Your task to perform on an android device: turn smart compose on in the gmail app Image 0: 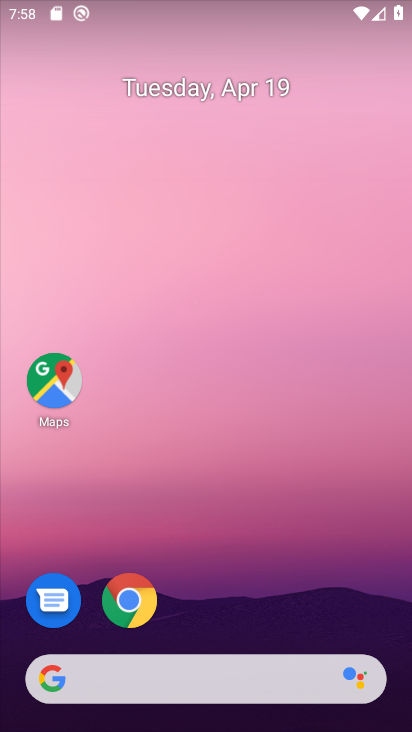
Step 0: click (409, 586)
Your task to perform on an android device: turn smart compose on in the gmail app Image 1: 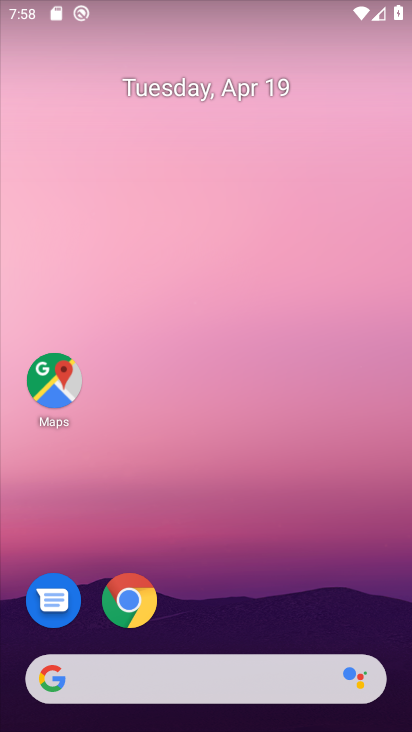
Step 1: drag from (364, 610) to (363, 136)
Your task to perform on an android device: turn smart compose on in the gmail app Image 2: 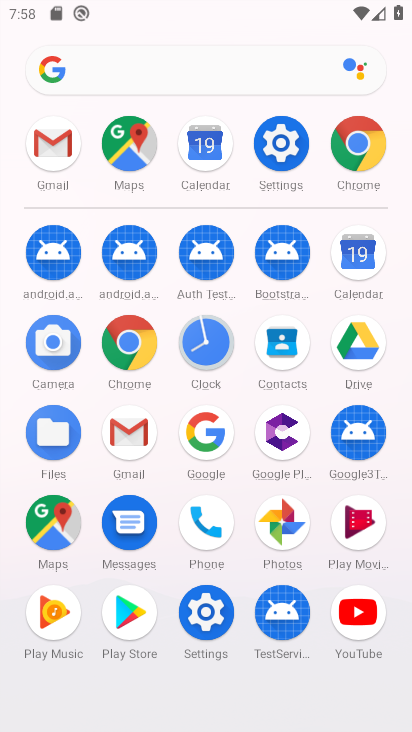
Step 2: click (129, 446)
Your task to perform on an android device: turn smart compose on in the gmail app Image 3: 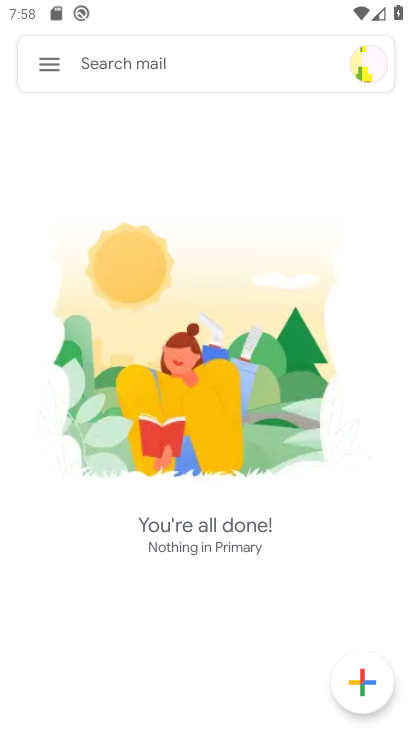
Step 3: click (52, 63)
Your task to perform on an android device: turn smart compose on in the gmail app Image 4: 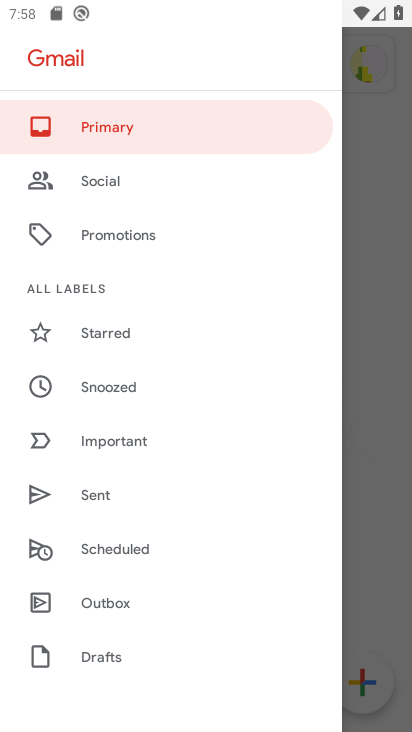
Step 4: drag from (262, 468) to (290, 329)
Your task to perform on an android device: turn smart compose on in the gmail app Image 5: 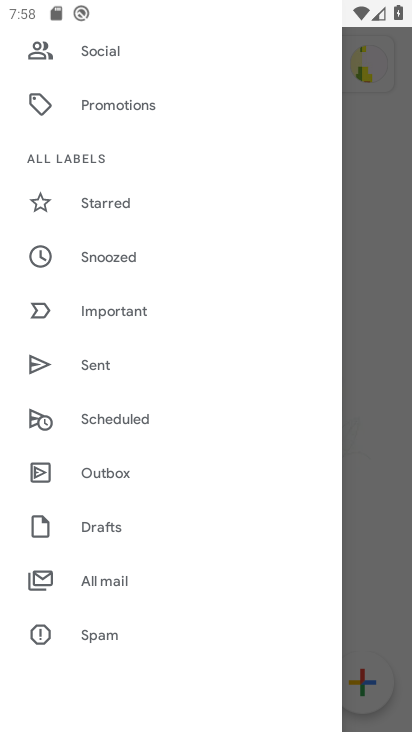
Step 5: drag from (290, 521) to (284, 383)
Your task to perform on an android device: turn smart compose on in the gmail app Image 6: 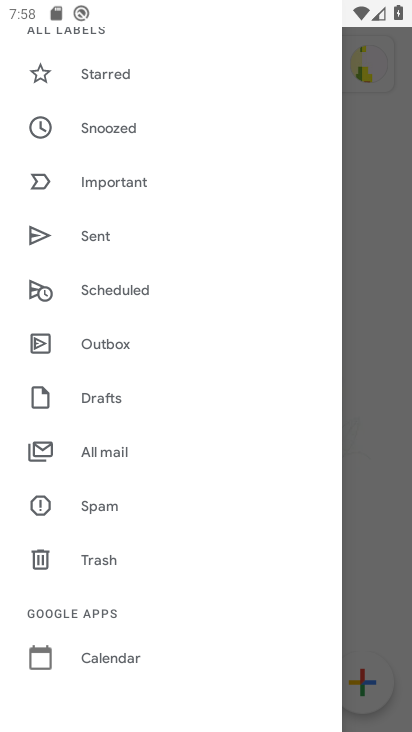
Step 6: drag from (271, 566) to (258, 292)
Your task to perform on an android device: turn smart compose on in the gmail app Image 7: 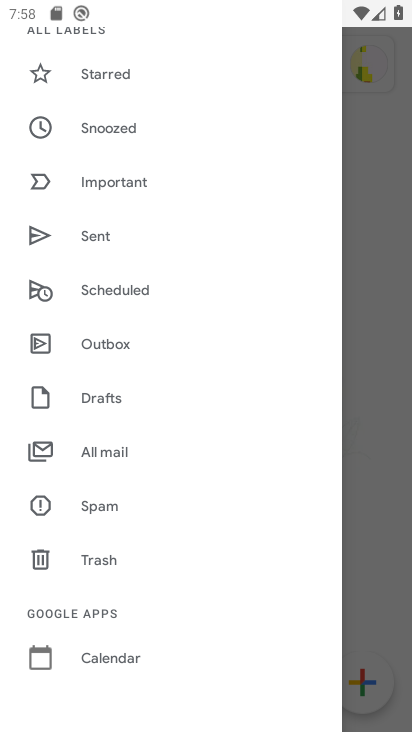
Step 7: drag from (257, 581) to (267, 330)
Your task to perform on an android device: turn smart compose on in the gmail app Image 8: 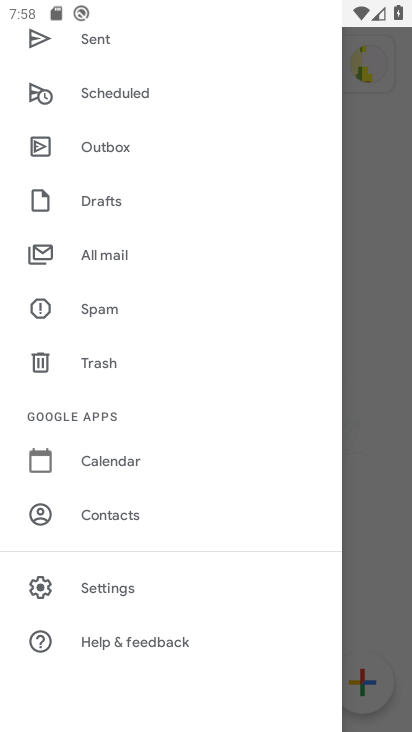
Step 8: click (138, 582)
Your task to perform on an android device: turn smart compose on in the gmail app Image 9: 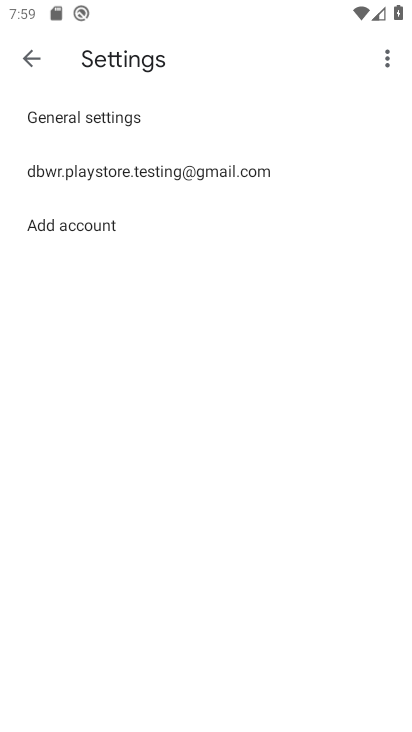
Step 9: click (216, 166)
Your task to perform on an android device: turn smart compose on in the gmail app Image 10: 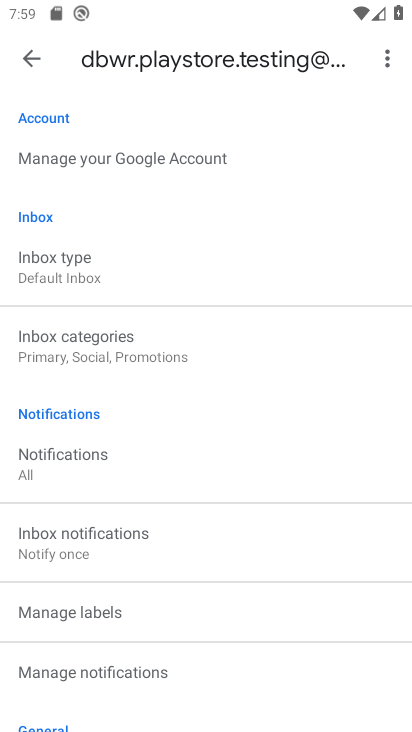
Step 10: task complete